Your task to perform on an android device: set the stopwatch Image 0: 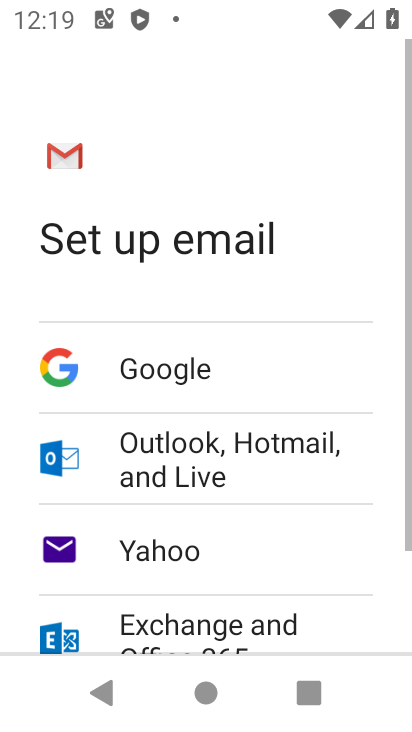
Step 0: press home button
Your task to perform on an android device: set the stopwatch Image 1: 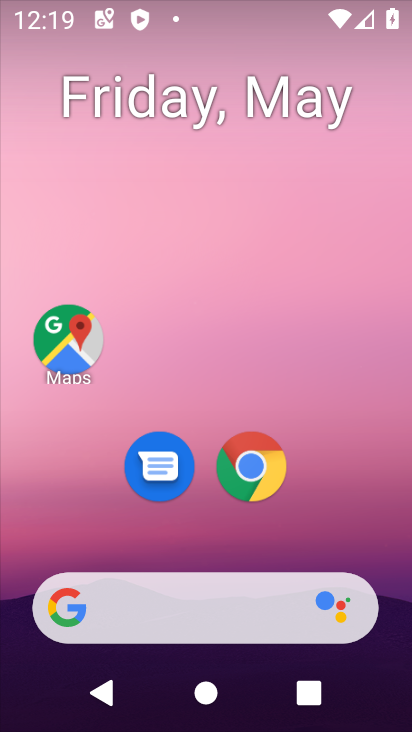
Step 1: drag from (386, 631) to (287, 40)
Your task to perform on an android device: set the stopwatch Image 2: 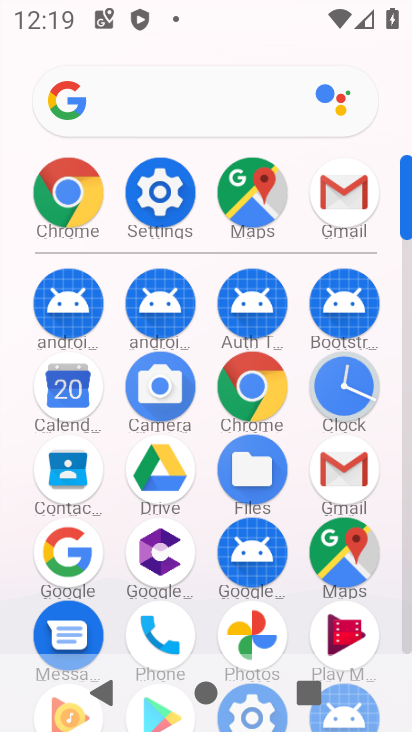
Step 2: click (333, 391)
Your task to perform on an android device: set the stopwatch Image 3: 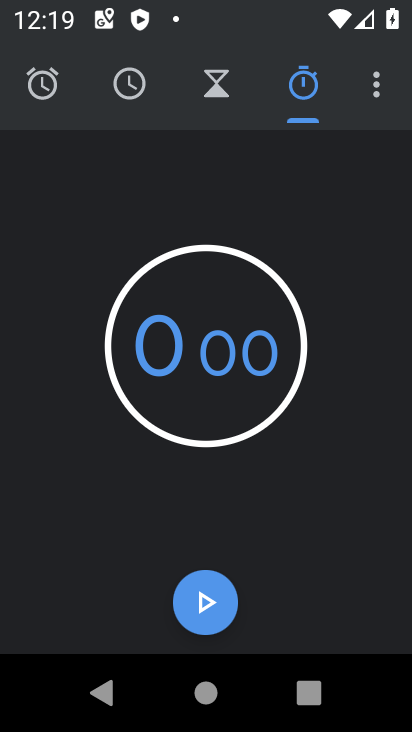
Step 3: click (200, 606)
Your task to perform on an android device: set the stopwatch Image 4: 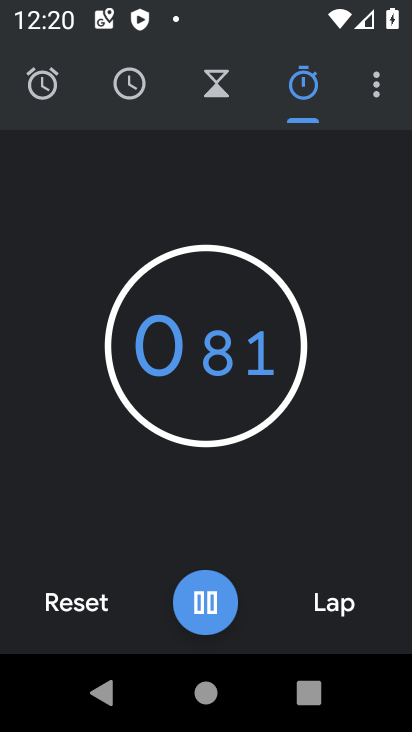
Step 4: click (200, 606)
Your task to perform on an android device: set the stopwatch Image 5: 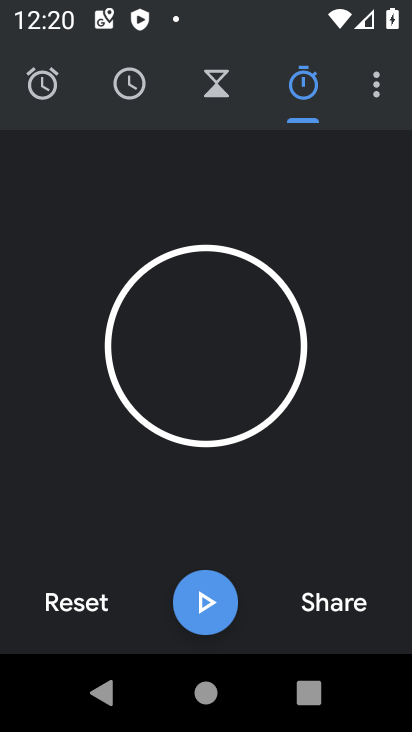
Step 5: task complete